Your task to perform on an android device: Open the phone app and click the voicemail tab. Image 0: 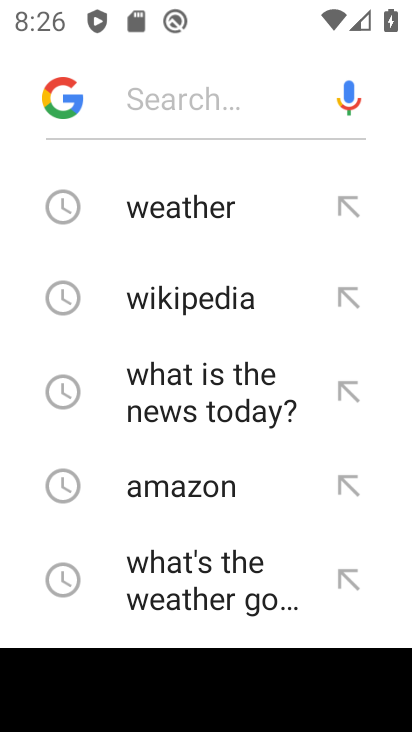
Step 0: press home button
Your task to perform on an android device: Open the phone app and click the voicemail tab. Image 1: 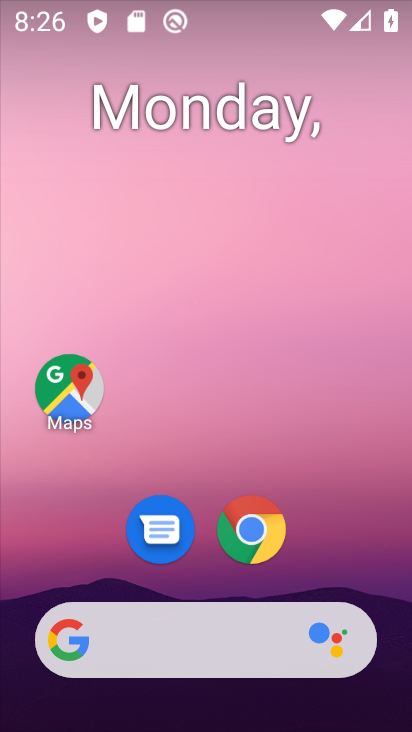
Step 1: drag from (116, 594) to (199, 6)
Your task to perform on an android device: Open the phone app and click the voicemail tab. Image 2: 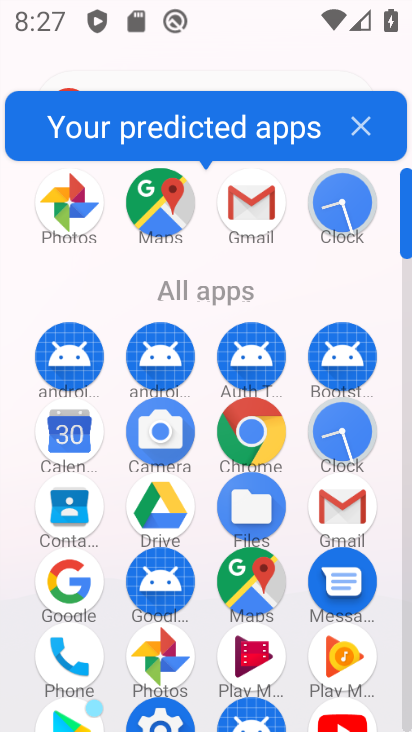
Step 2: drag from (129, 622) to (184, 372)
Your task to perform on an android device: Open the phone app and click the voicemail tab. Image 3: 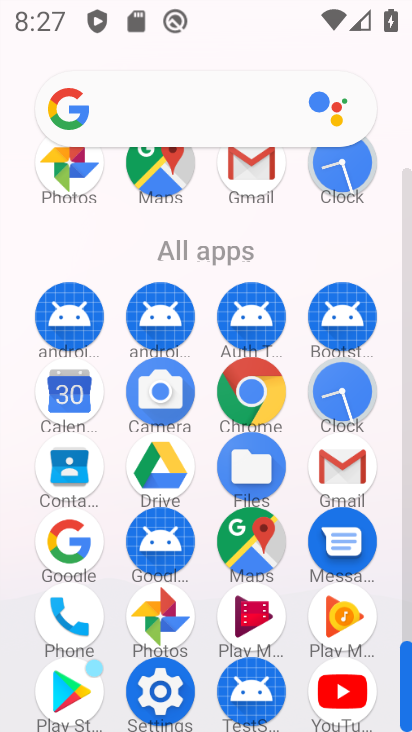
Step 3: click (83, 615)
Your task to perform on an android device: Open the phone app and click the voicemail tab. Image 4: 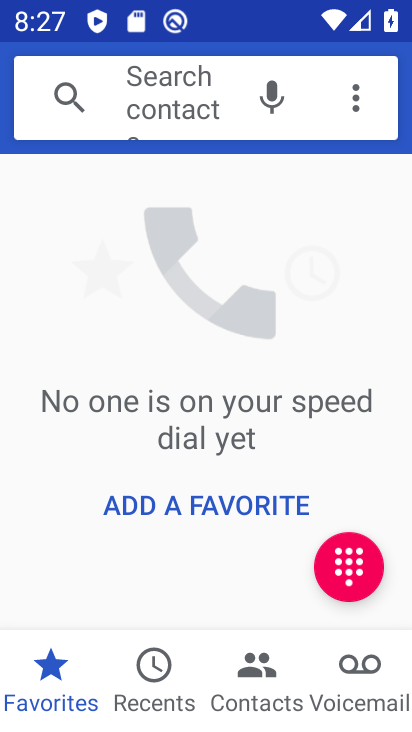
Step 4: click (381, 680)
Your task to perform on an android device: Open the phone app and click the voicemail tab. Image 5: 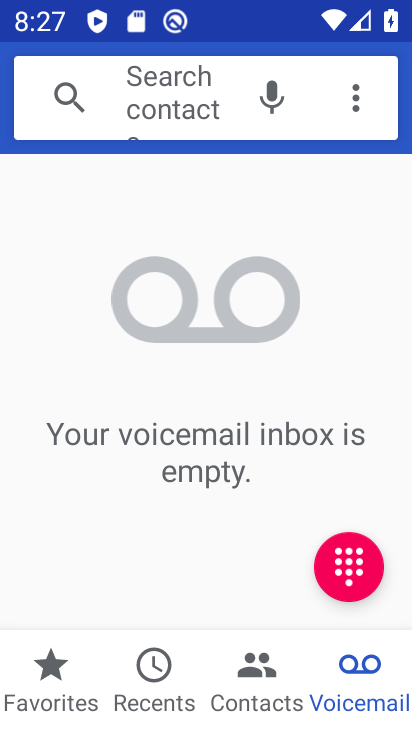
Step 5: task complete